Your task to perform on an android device: change keyboard looks Image 0: 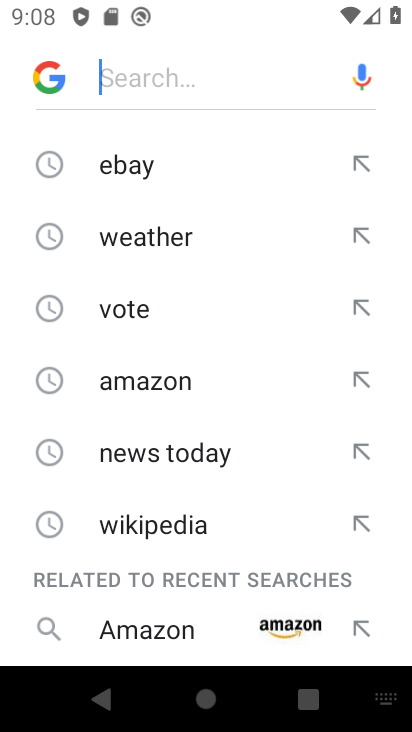
Step 0: press back button
Your task to perform on an android device: change keyboard looks Image 1: 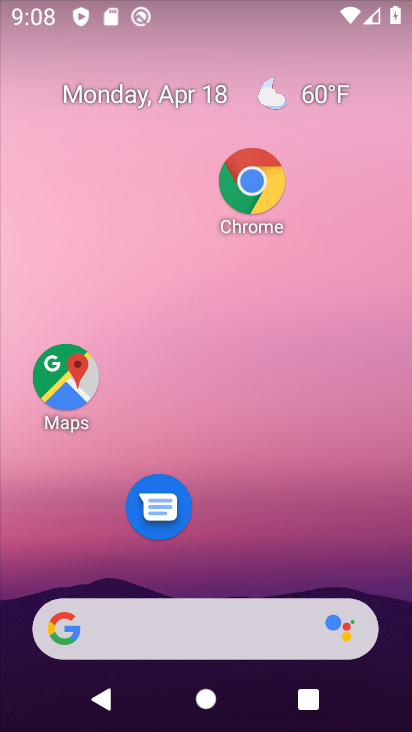
Step 1: drag from (184, 611) to (166, 116)
Your task to perform on an android device: change keyboard looks Image 2: 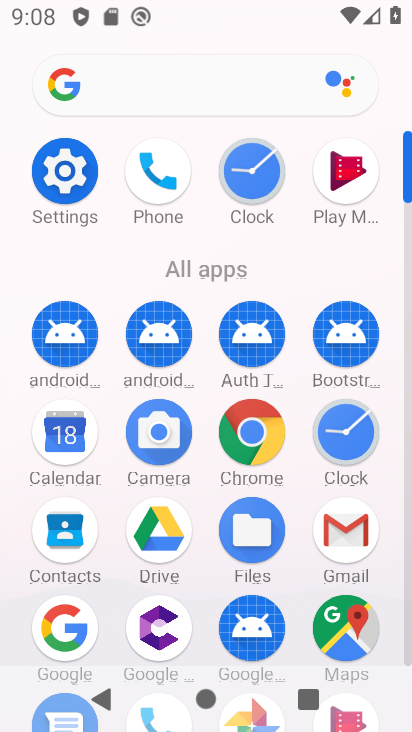
Step 2: click (70, 180)
Your task to perform on an android device: change keyboard looks Image 3: 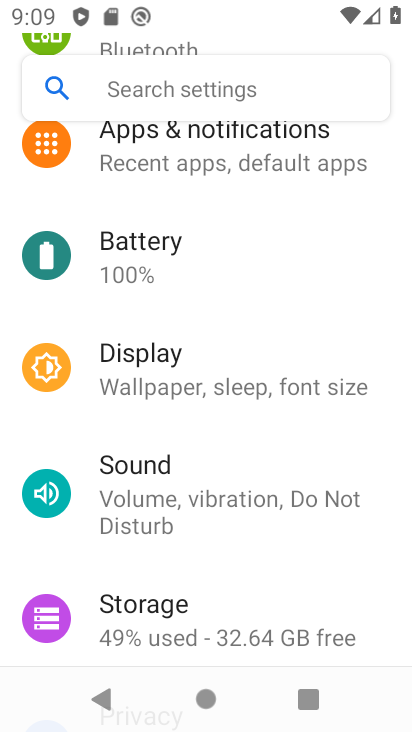
Step 3: drag from (184, 616) to (160, 57)
Your task to perform on an android device: change keyboard looks Image 4: 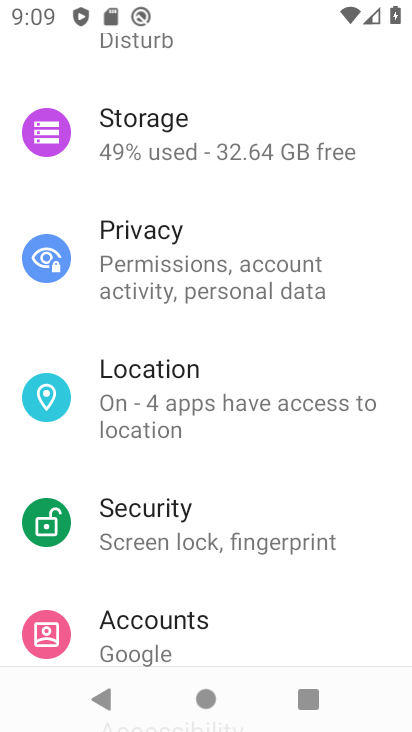
Step 4: drag from (176, 614) to (127, 146)
Your task to perform on an android device: change keyboard looks Image 5: 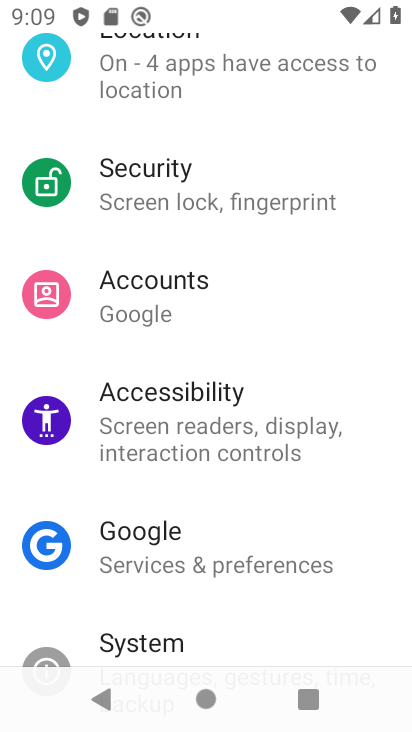
Step 5: drag from (143, 602) to (146, 113)
Your task to perform on an android device: change keyboard looks Image 6: 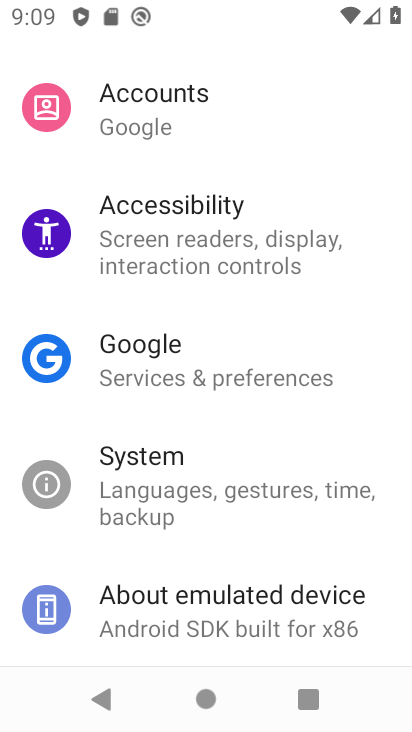
Step 6: click (153, 507)
Your task to perform on an android device: change keyboard looks Image 7: 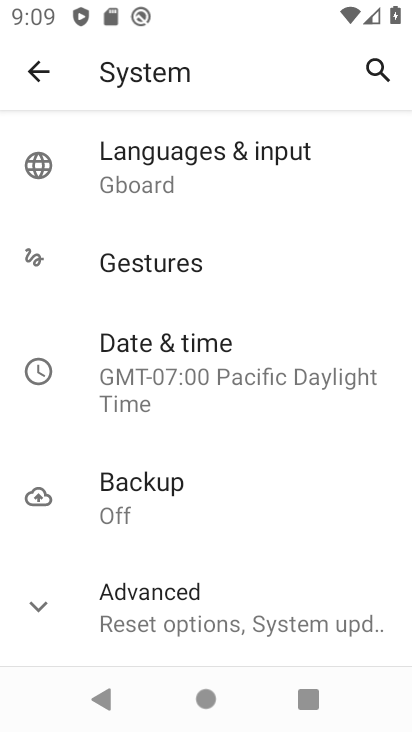
Step 7: click (117, 147)
Your task to perform on an android device: change keyboard looks Image 8: 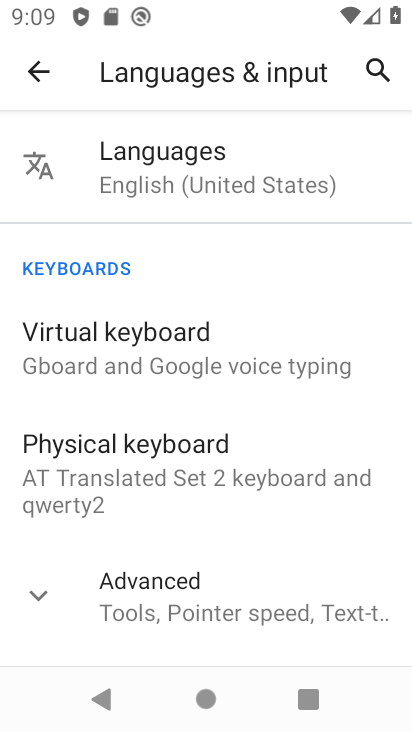
Step 8: click (124, 329)
Your task to perform on an android device: change keyboard looks Image 9: 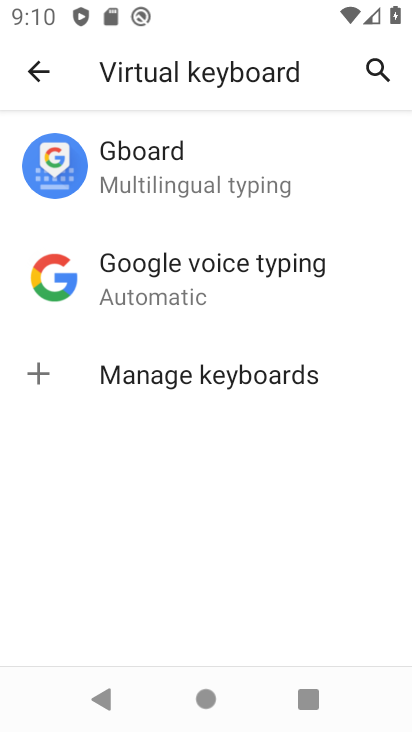
Step 9: click (150, 178)
Your task to perform on an android device: change keyboard looks Image 10: 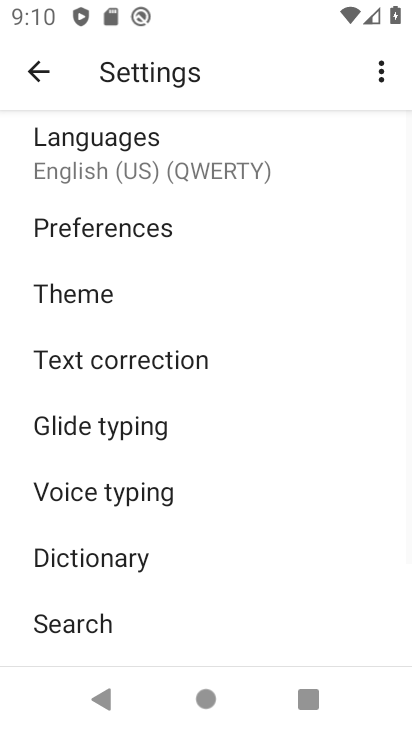
Step 10: click (83, 295)
Your task to perform on an android device: change keyboard looks Image 11: 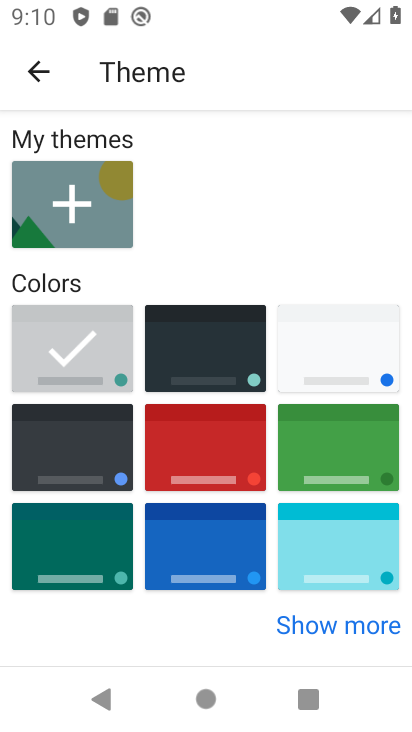
Step 11: click (219, 347)
Your task to perform on an android device: change keyboard looks Image 12: 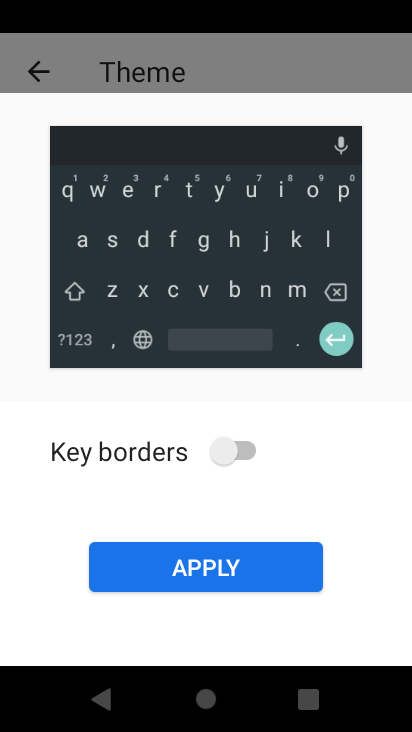
Step 12: click (233, 567)
Your task to perform on an android device: change keyboard looks Image 13: 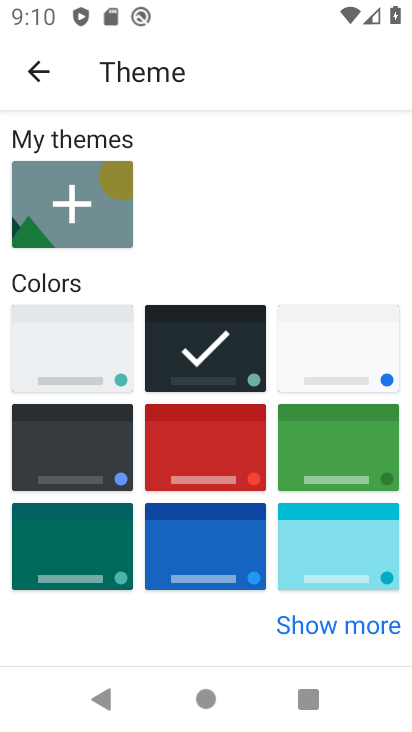
Step 13: task complete